Your task to perform on an android device: uninstall "Pandora - Music & Podcasts" Image 0: 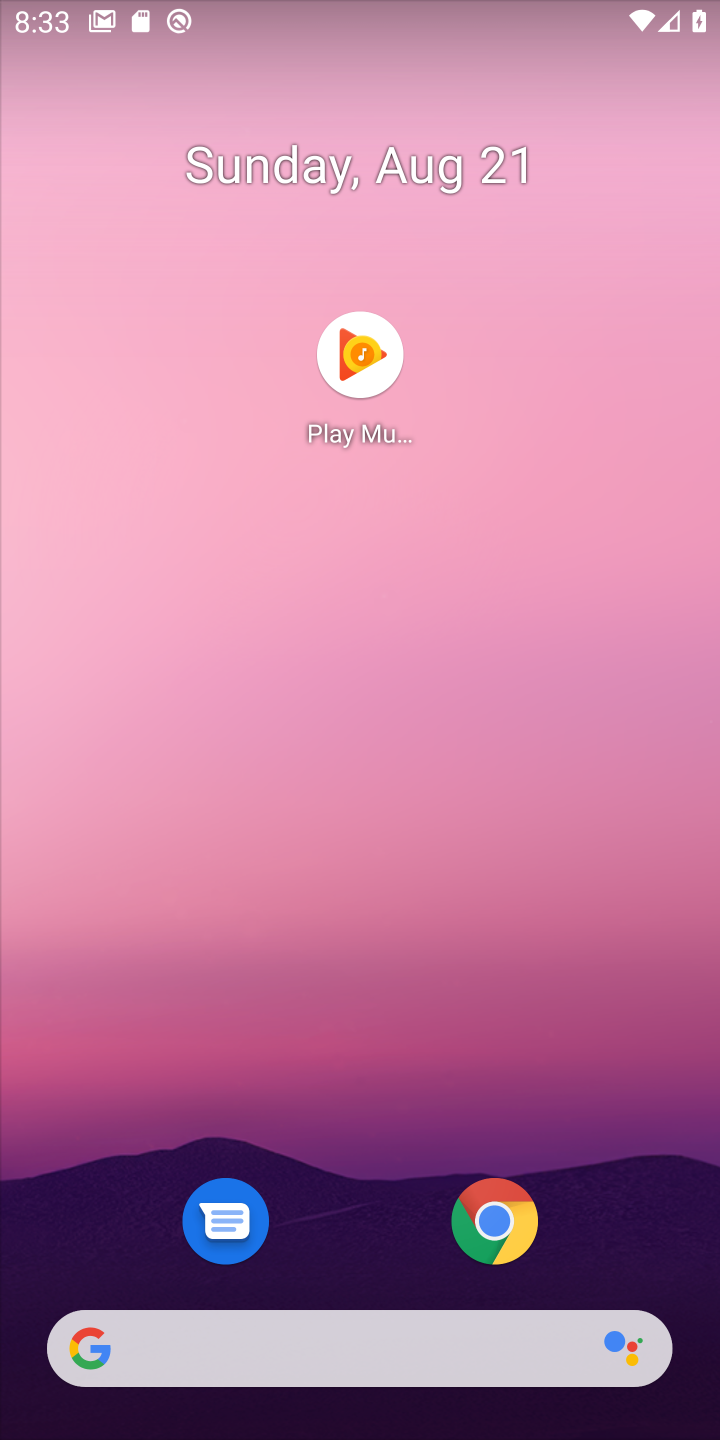
Step 0: drag from (339, 1182) to (387, 182)
Your task to perform on an android device: uninstall "Pandora - Music & Podcasts" Image 1: 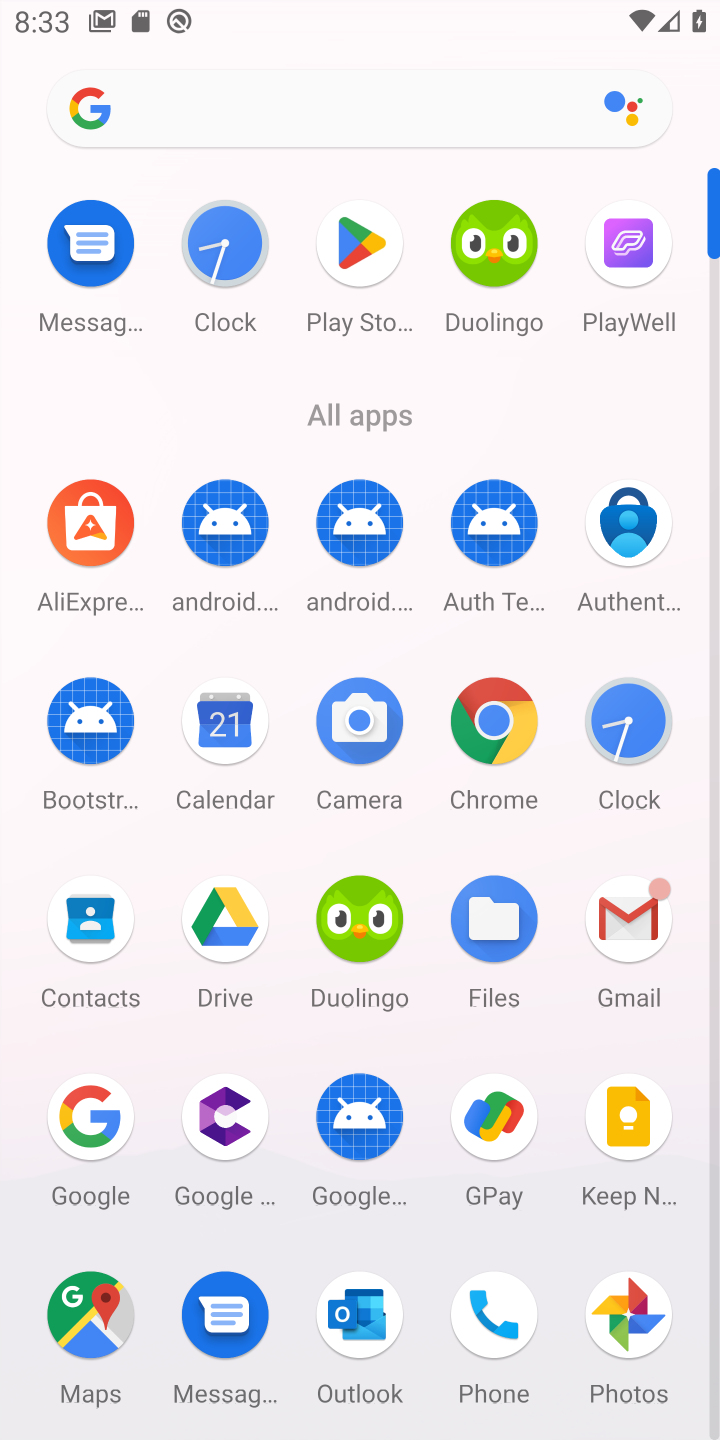
Step 1: click (360, 243)
Your task to perform on an android device: uninstall "Pandora - Music & Podcasts" Image 2: 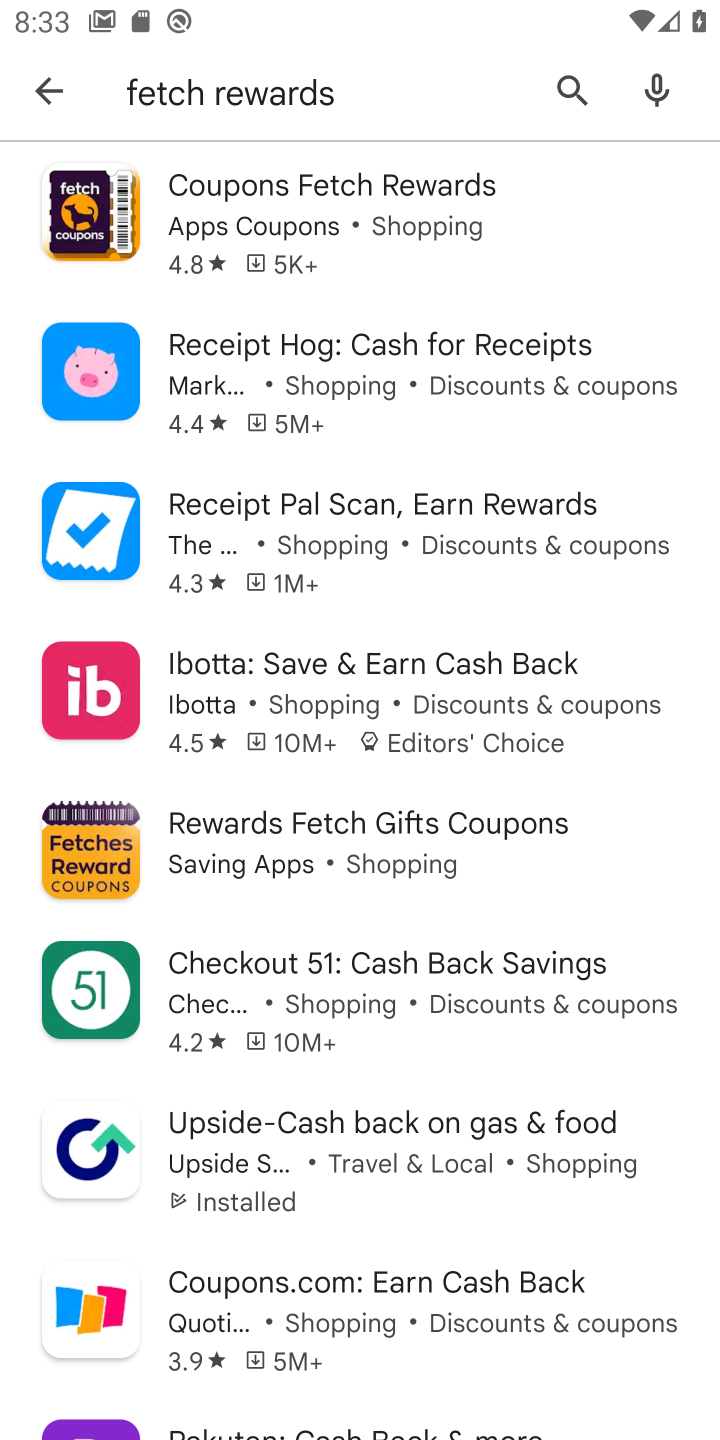
Step 2: click (575, 78)
Your task to perform on an android device: uninstall "Pandora - Music & Podcasts" Image 3: 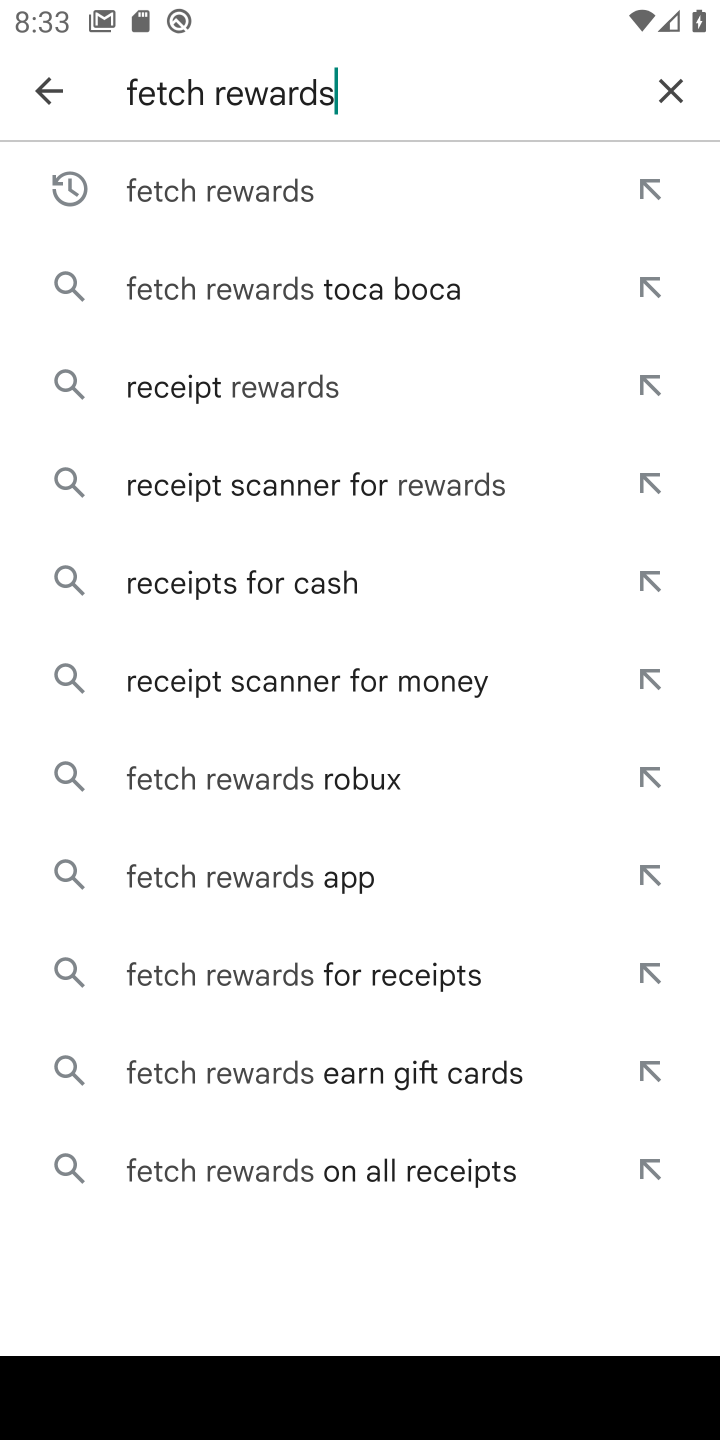
Step 3: click (678, 80)
Your task to perform on an android device: uninstall "Pandora - Music & Podcasts" Image 4: 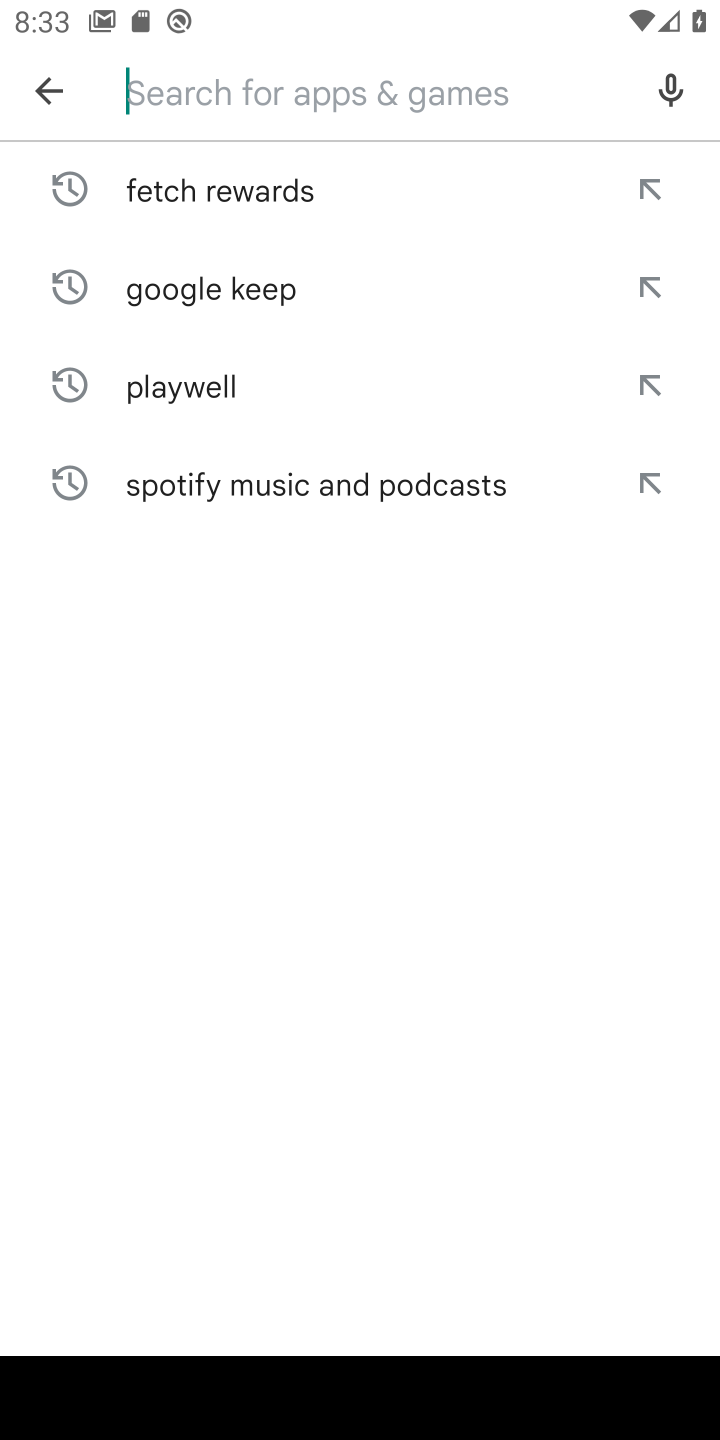
Step 4: type "Pandora - Music & Podcasts"
Your task to perform on an android device: uninstall "Pandora - Music & Podcasts" Image 5: 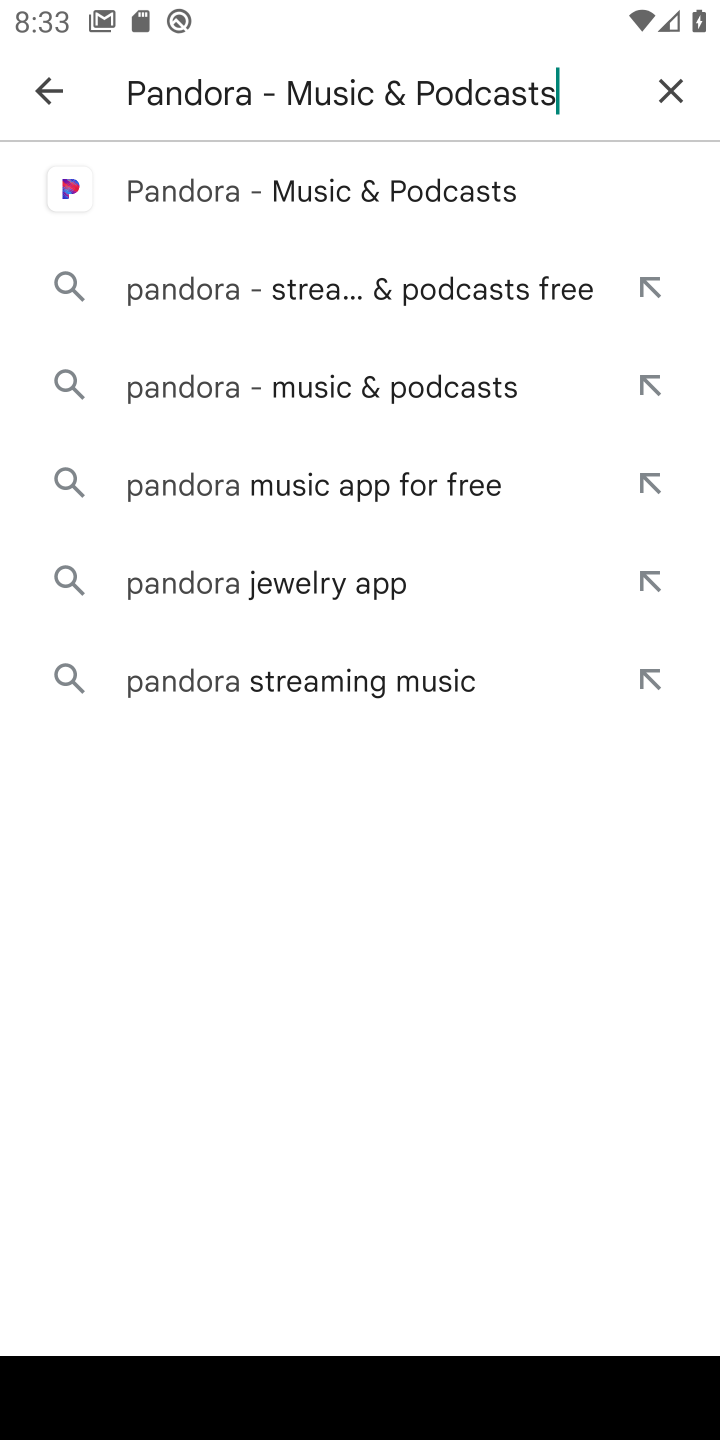
Step 5: type ""
Your task to perform on an android device: uninstall "Pandora - Music & Podcasts" Image 6: 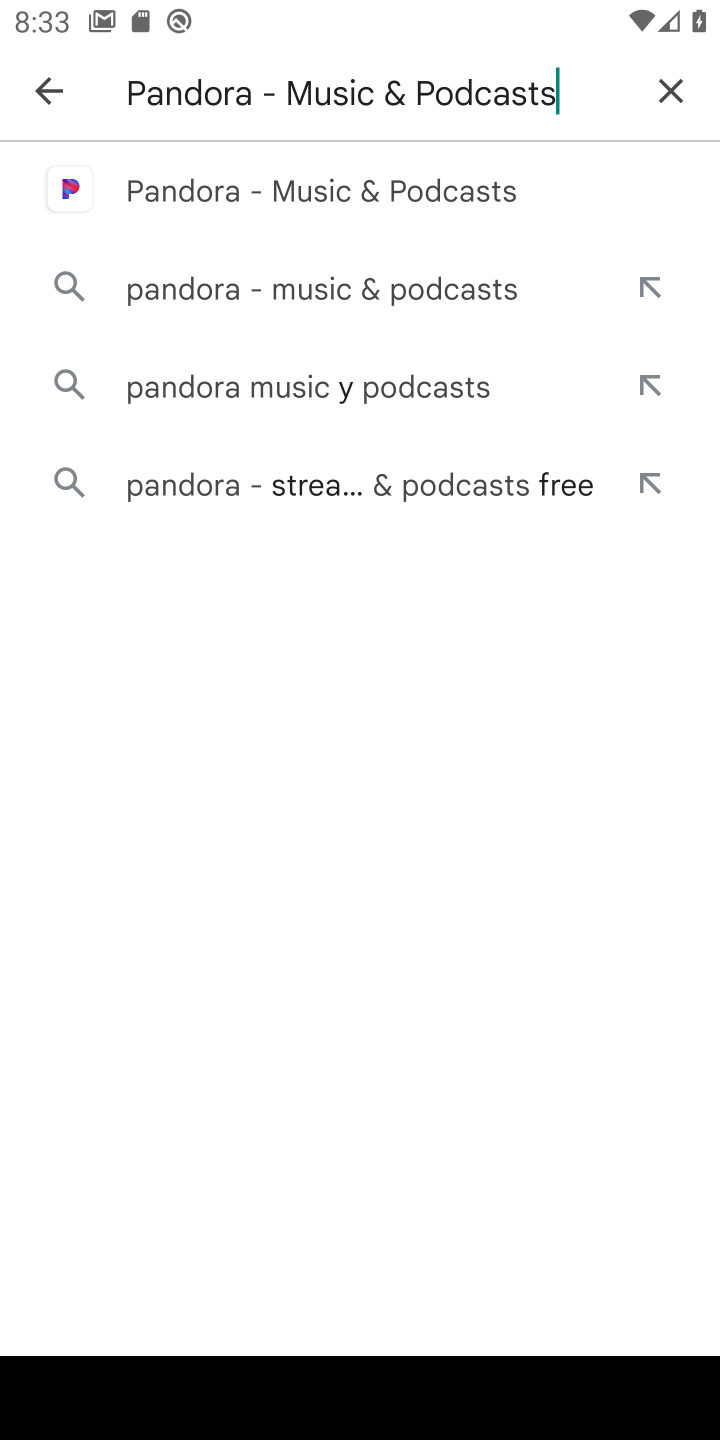
Step 6: click (421, 186)
Your task to perform on an android device: uninstall "Pandora - Music & Podcasts" Image 7: 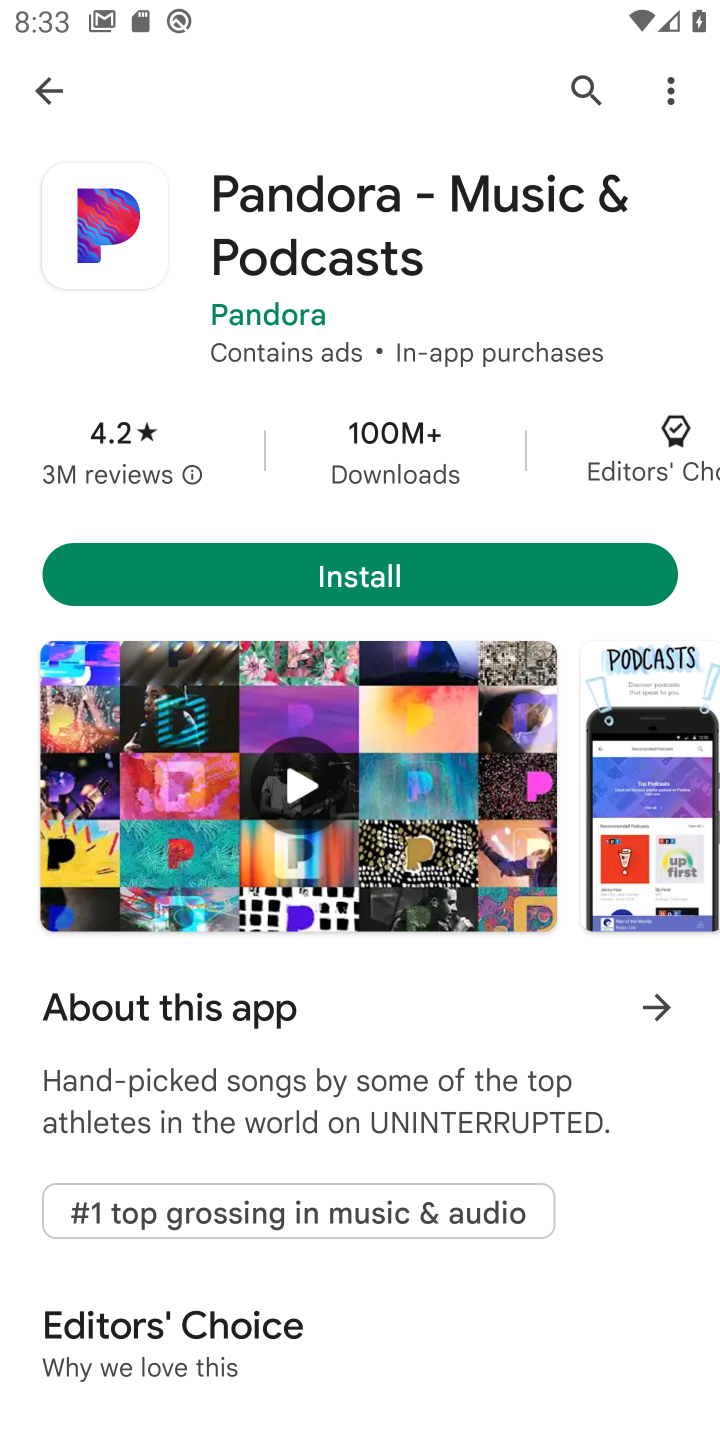
Step 7: task complete